Your task to perform on an android device: turn off smart reply in the gmail app Image 0: 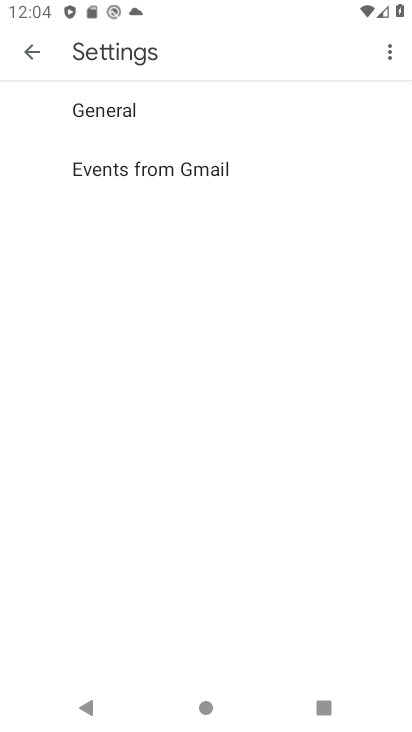
Step 0: click (34, 53)
Your task to perform on an android device: turn off smart reply in the gmail app Image 1: 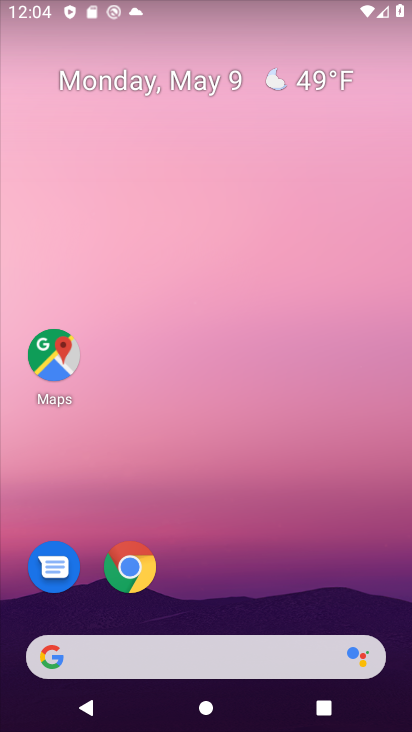
Step 1: drag from (184, 731) to (195, 227)
Your task to perform on an android device: turn off smart reply in the gmail app Image 2: 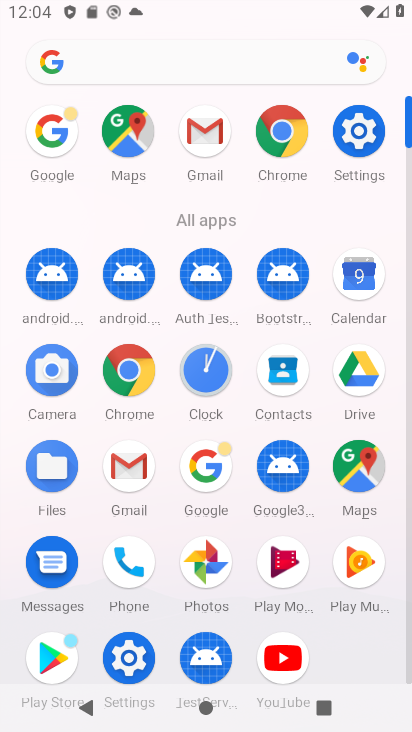
Step 2: click (132, 463)
Your task to perform on an android device: turn off smart reply in the gmail app Image 3: 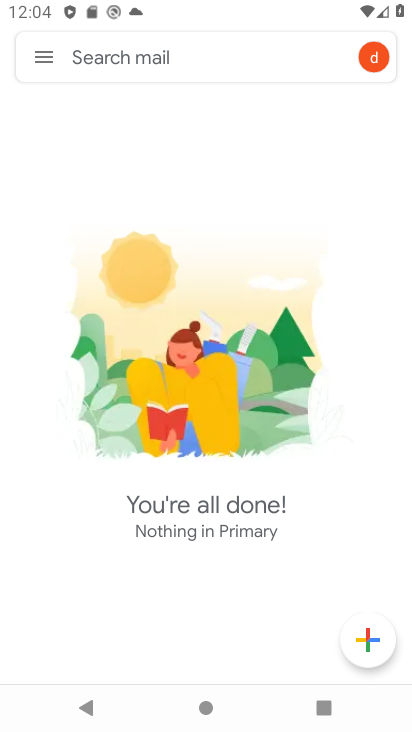
Step 3: click (41, 58)
Your task to perform on an android device: turn off smart reply in the gmail app Image 4: 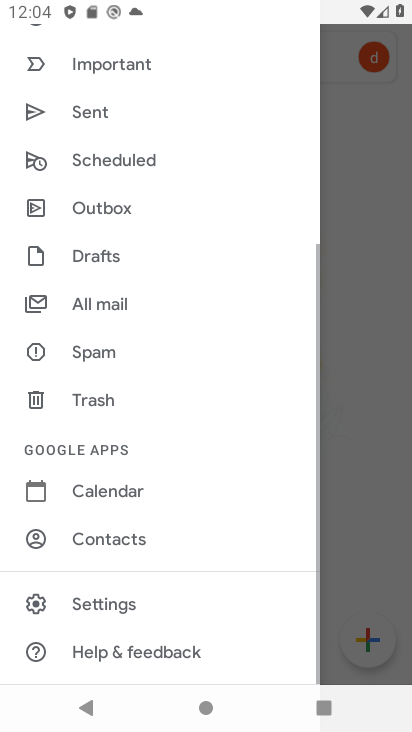
Step 4: click (91, 602)
Your task to perform on an android device: turn off smart reply in the gmail app Image 5: 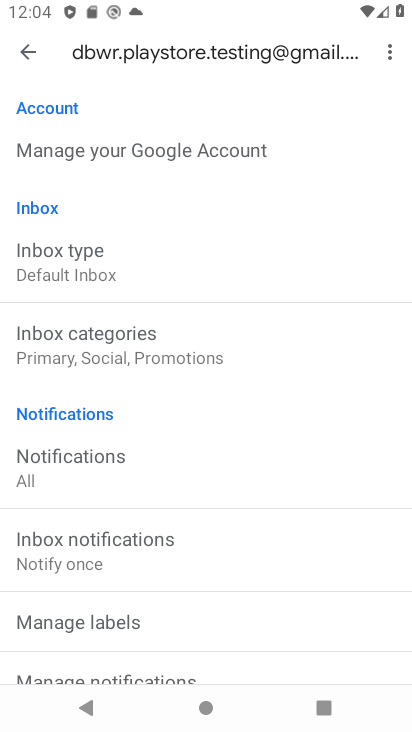
Step 5: drag from (179, 669) to (182, 208)
Your task to perform on an android device: turn off smart reply in the gmail app Image 6: 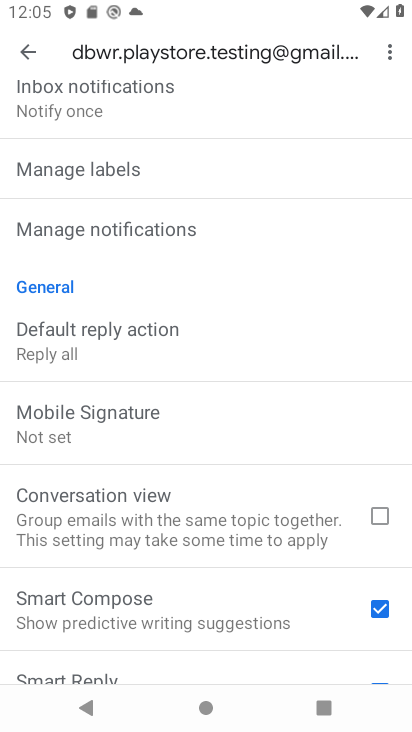
Step 6: drag from (146, 667) to (125, 296)
Your task to perform on an android device: turn off smart reply in the gmail app Image 7: 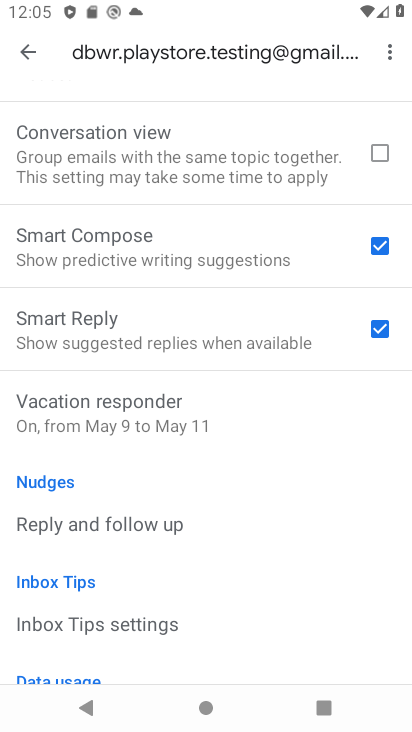
Step 7: click (378, 327)
Your task to perform on an android device: turn off smart reply in the gmail app Image 8: 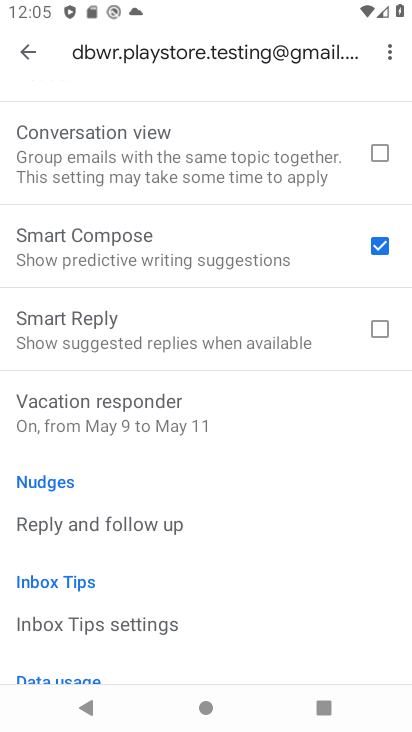
Step 8: task complete